Your task to perform on an android device: set an alarm Image 0: 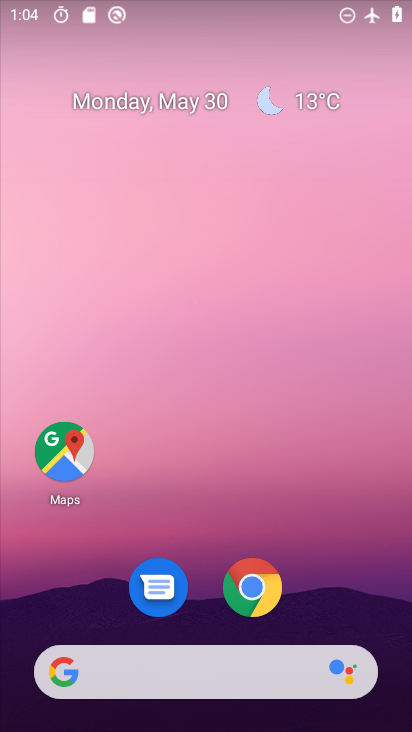
Step 0: drag from (335, 537) to (304, 171)
Your task to perform on an android device: set an alarm Image 1: 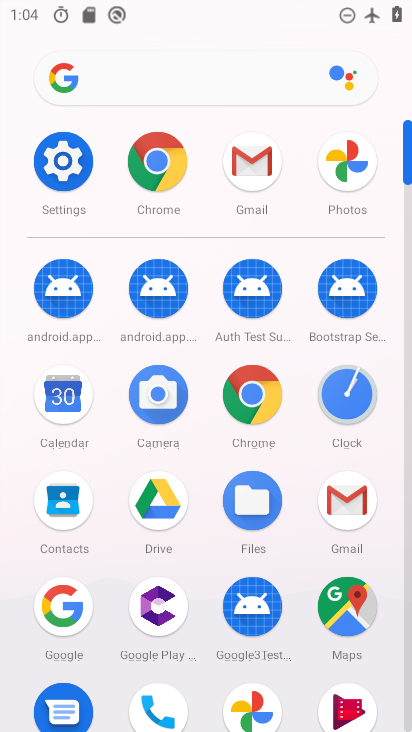
Step 1: click (340, 408)
Your task to perform on an android device: set an alarm Image 2: 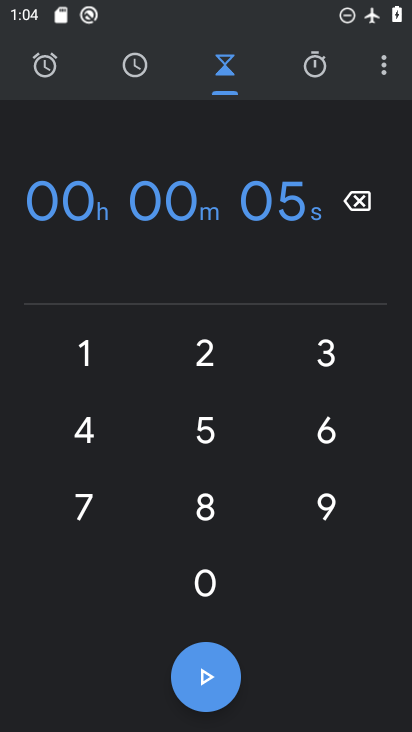
Step 2: click (38, 67)
Your task to perform on an android device: set an alarm Image 3: 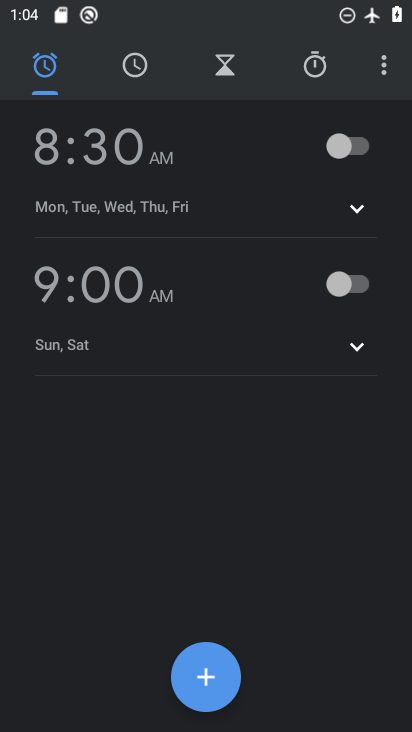
Step 3: click (212, 666)
Your task to perform on an android device: set an alarm Image 4: 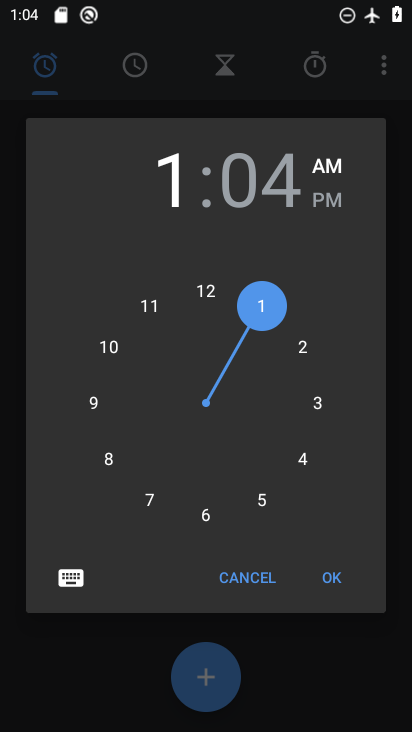
Step 4: click (330, 567)
Your task to perform on an android device: set an alarm Image 5: 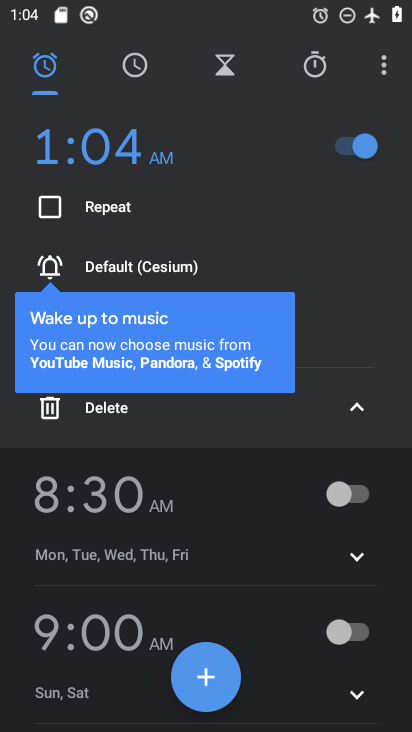
Step 5: task complete